Your task to perform on an android device: Search for sushi restaurants on Maps Image 0: 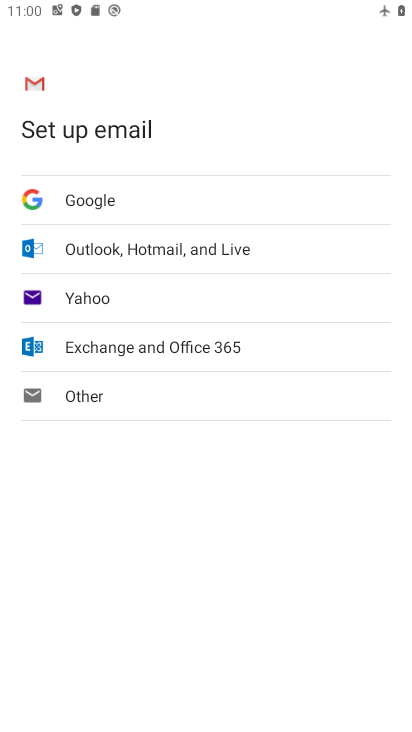
Step 0: press home button
Your task to perform on an android device: Search for sushi restaurants on Maps Image 1: 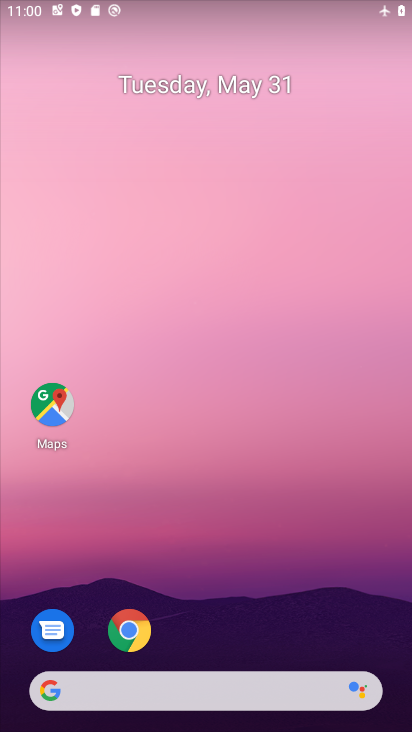
Step 1: drag from (247, 627) to (326, 141)
Your task to perform on an android device: Search for sushi restaurants on Maps Image 2: 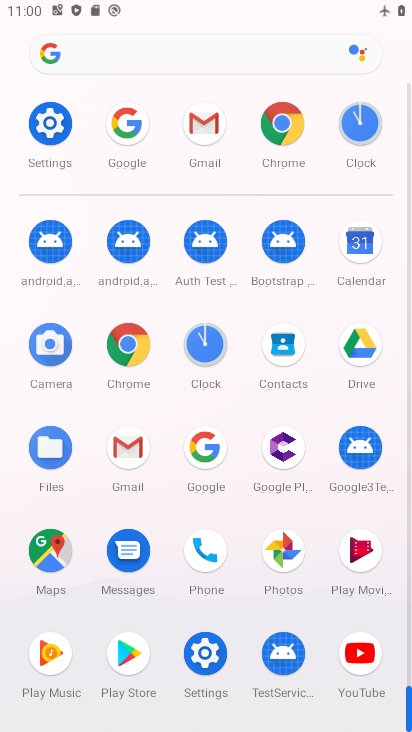
Step 2: drag from (240, 512) to (273, 295)
Your task to perform on an android device: Search for sushi restaurants on Maps Image 3: 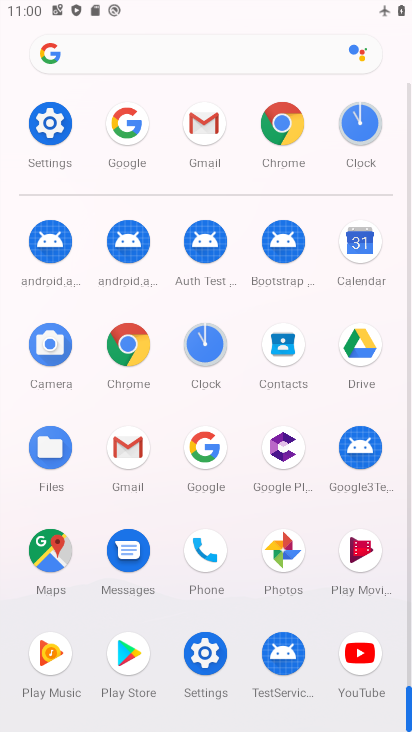
Step 3: click (50, 557)
Your task to perform on an android device: Search for sushi restaurants on Maps Image 4: 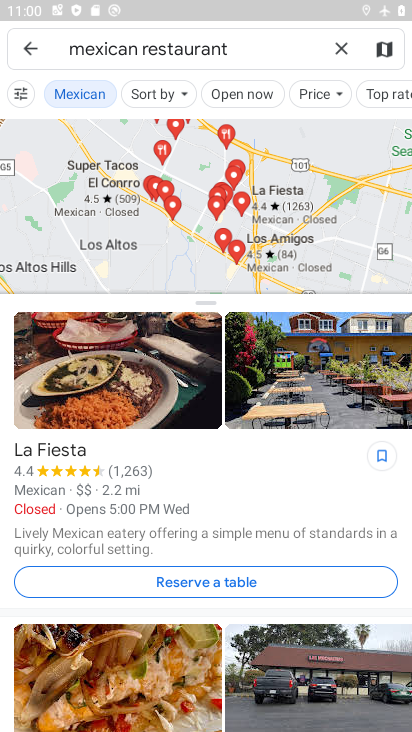
Step 4: click (335, 57)
Your task to perform on an android device: Search for sushi restaurants on Maps Image 5: 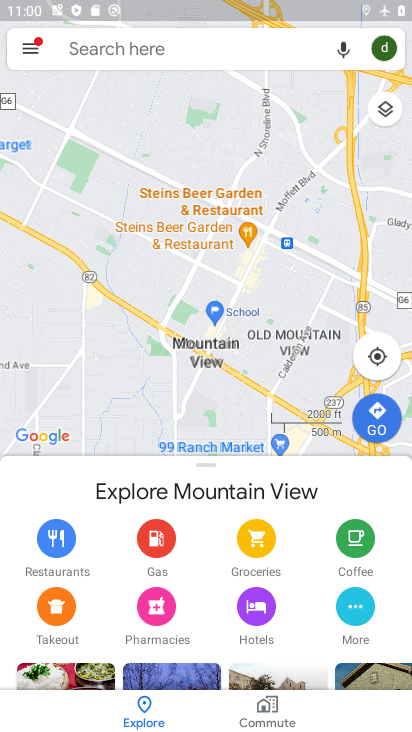
Step 5: click (152, 46)
Your task to perform on an android device: Search for sushi restaurants on Maps Image 6: 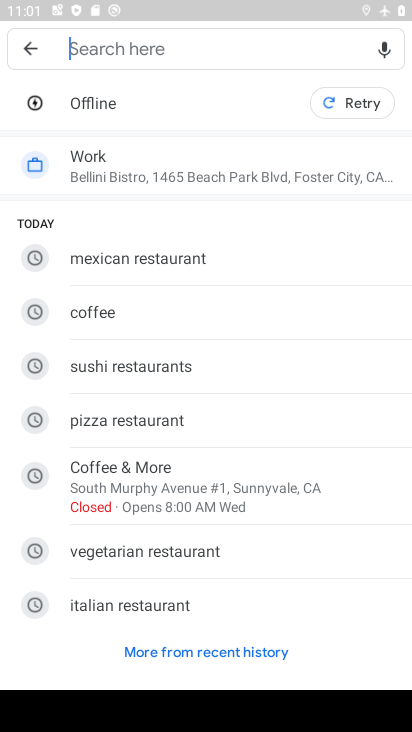
Step 6: click (129, 365)
Your task to perform on an android device: Search for sushi restaurants on Maps Image 7: 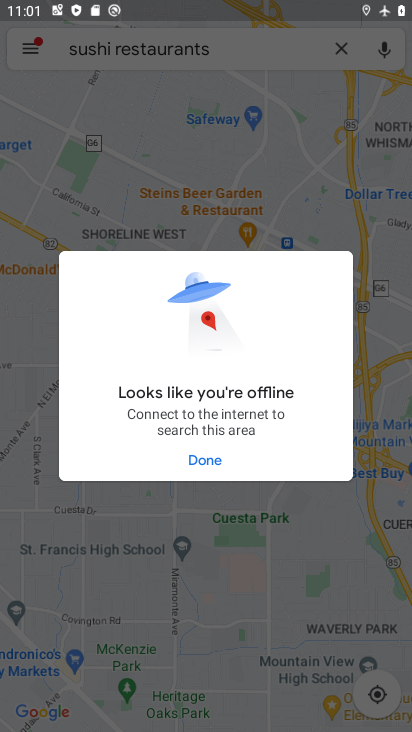
Step 7: click (210, 453)
Your task to perform on an android device: Search for sushi restaurants on Maps Image 8: 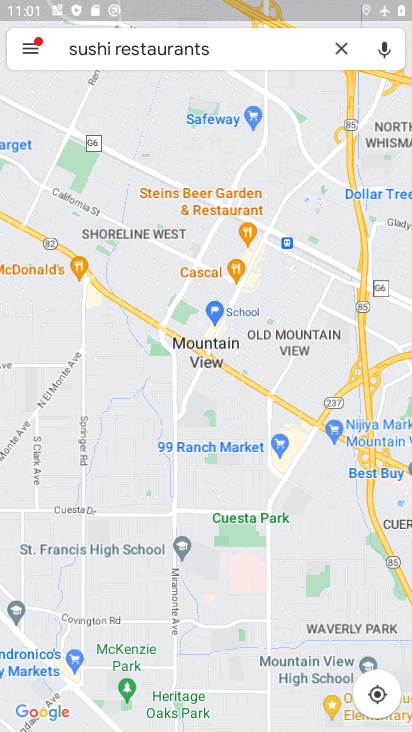
Step 8: task complete